Your task to perform on an android device: toggle notifications settings in the gmail app Image 0: 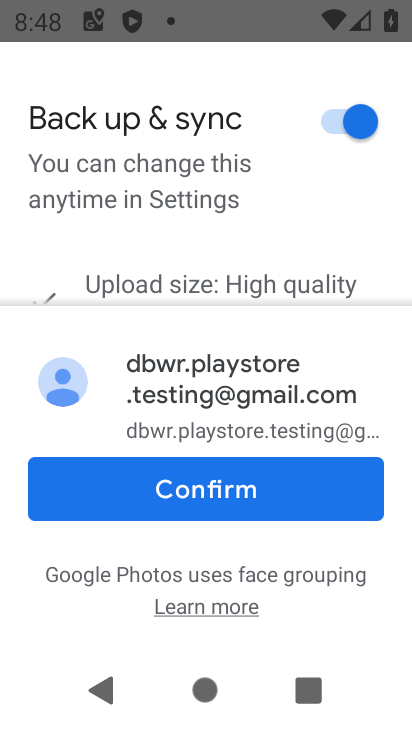
Step 0: press home button
Your task to perform on an android device: toggle notifications settings in the gmail app Image 1: 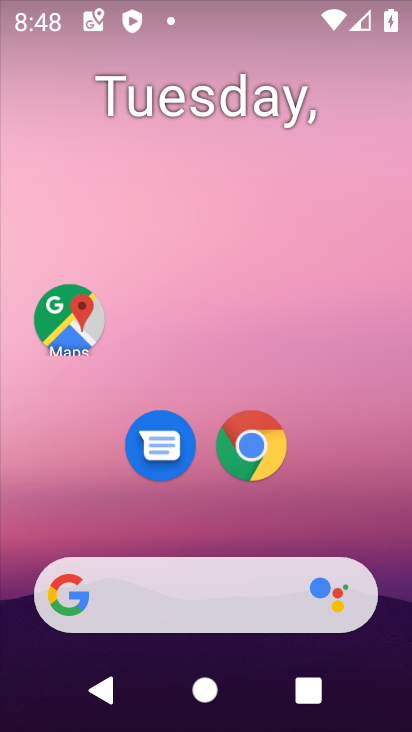
Step 1: drag from (345, 521) to (333, 100)
Your task to perform on an android device: toggle notifications settings in the gmail app Image 2: 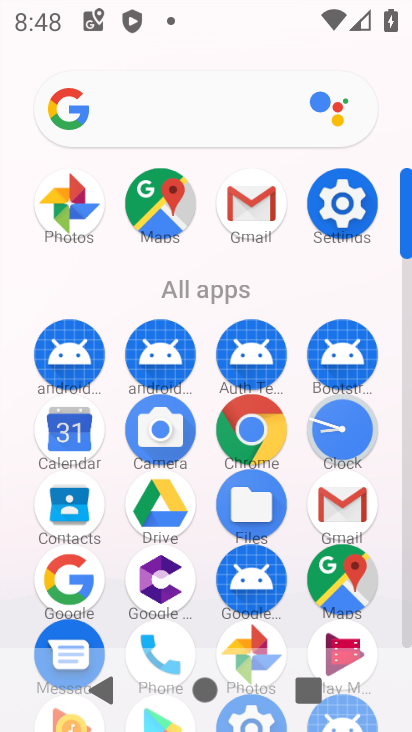
Step 2: click (251, 190)
Your task to perform on an android device: toggle notifications settings in the gmail app Image 3: 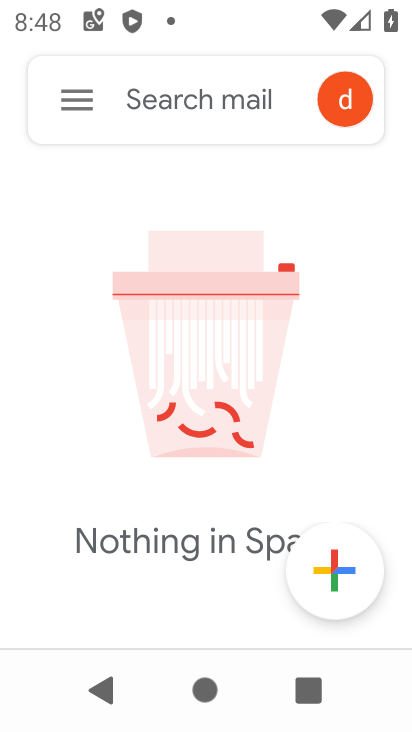
Step 3: click (77, 106)
Your task to perform on an android device: toggle notifications settings in the gmail app Image 4: 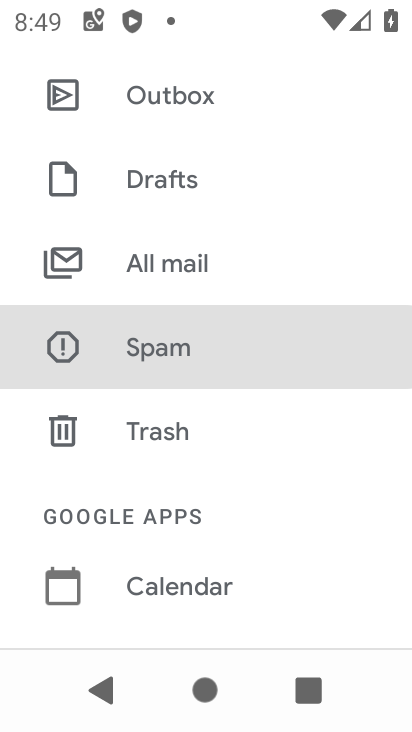
Step 4: drag from (205, 491) to (213, 200)
Your task to perform on an android device: toggle notifications settings in the gmail app Image 5: 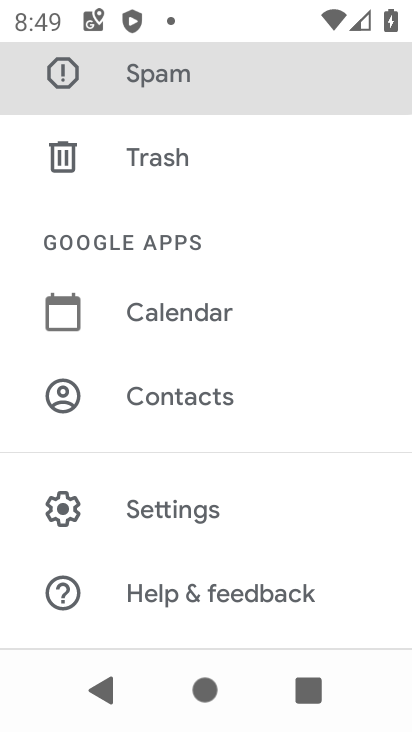
Step 5: click (224, 512)
Your task to perform on an android device: toggle notifications settings in the gmail app Image 6: 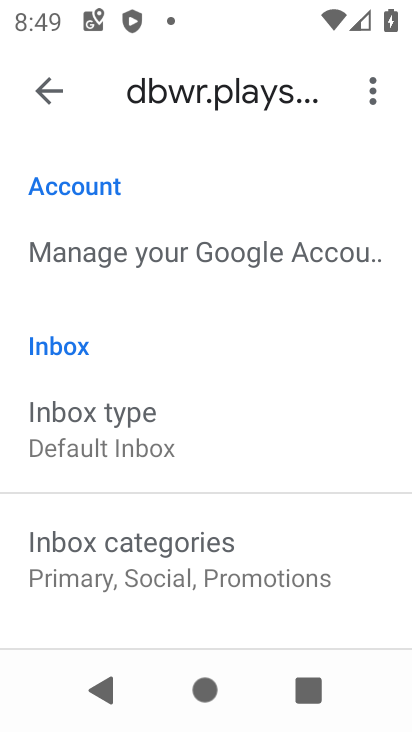
Step 6: drag from (207, 442) to (214, 10)
Your task to perform on an android device: toggle notifications settings in the gmail app Image 7: 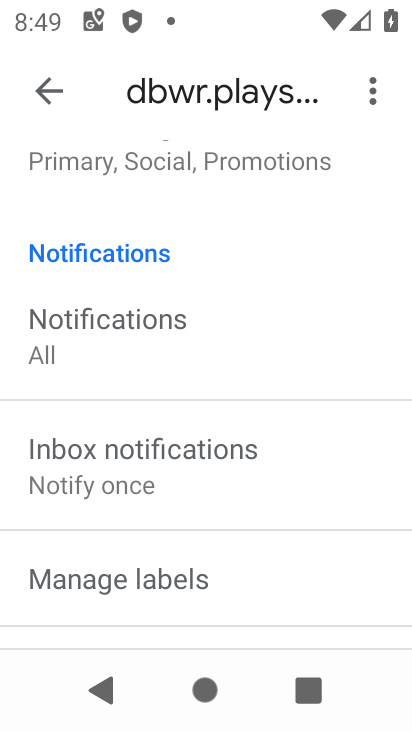
Step 7: drag from (127, 576) to (143, 367)
Your task to perform on an android device: toggle notifications settings in the gmail app Image 8: 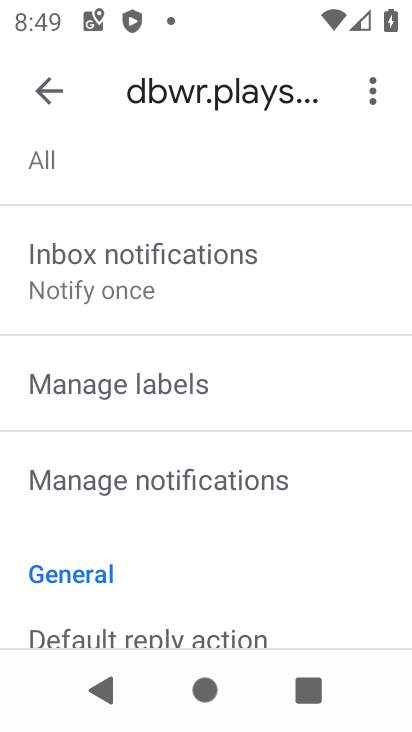
Step 8: click (153, 463)
Your task to perform on an android device: toggle notifications settings in the gmail app Image 9: 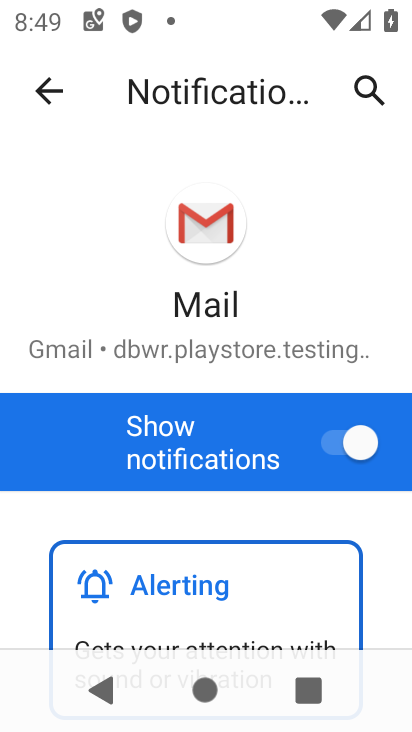
Step 9: click (337, 419)
Your task to perform on an android device: toggle notifications settings in the gmail app Image 10: 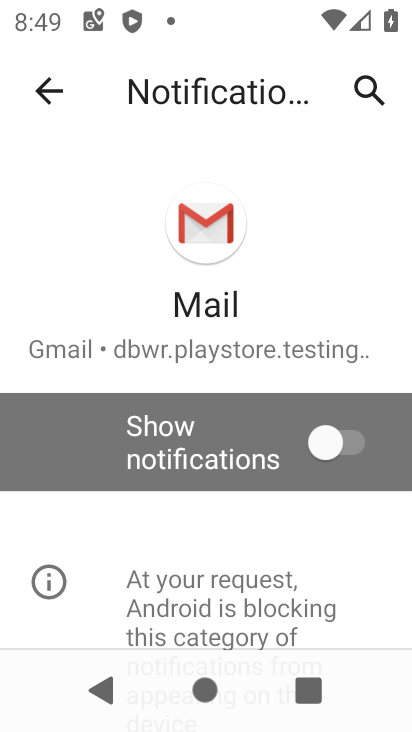
Step 10: task complete